Your task to perform on an android device: Open my contact list Image 0: 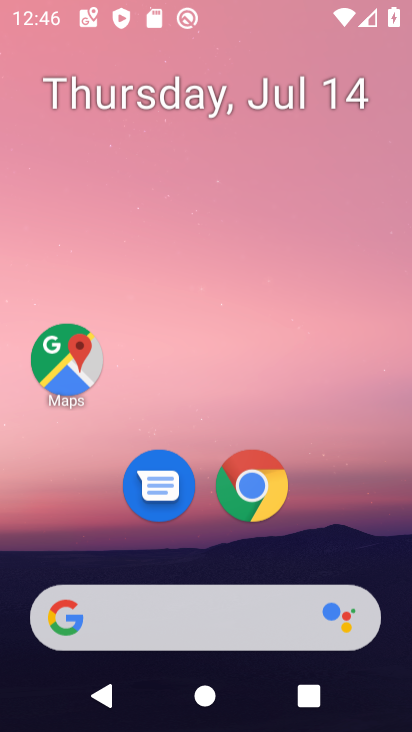
Step 0: press home button
Your task to perform on an android device: Open my contact list Image 1: 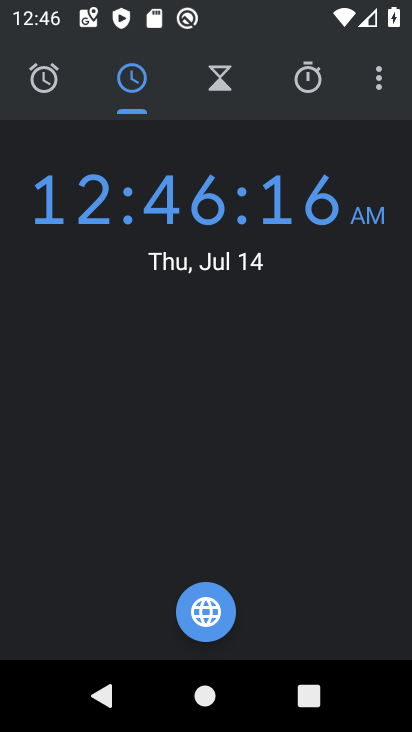
Step 1: press back button
Your task to perform on an android device: Open my contact list Image 2: 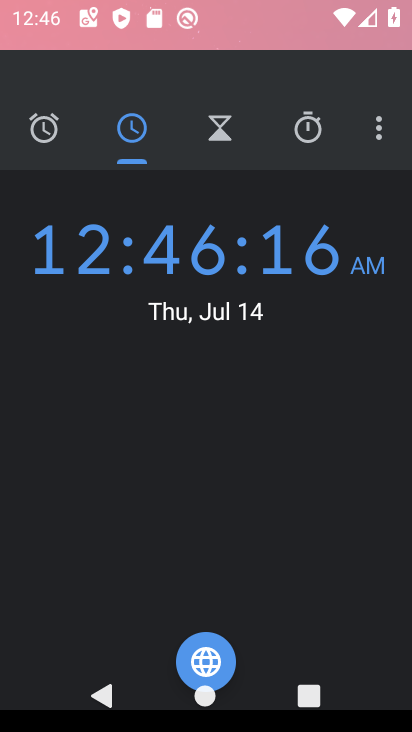
Step 2: press home button
Your task to perform on an android device: Open my contact list Image 3: 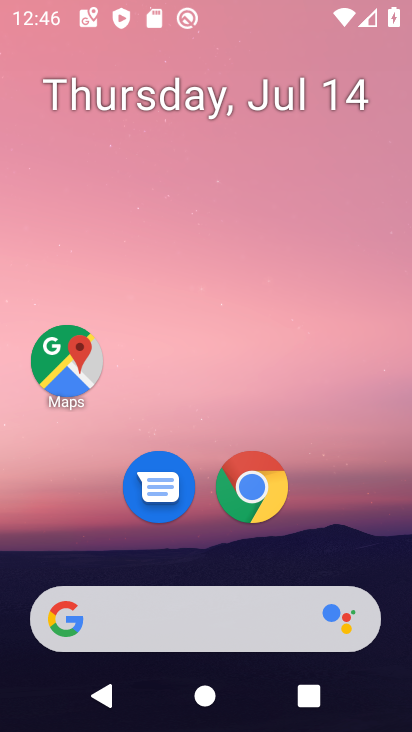
Step 3: click (411, 431)
Your task to perform on an android device: Open my contact list Image 4: 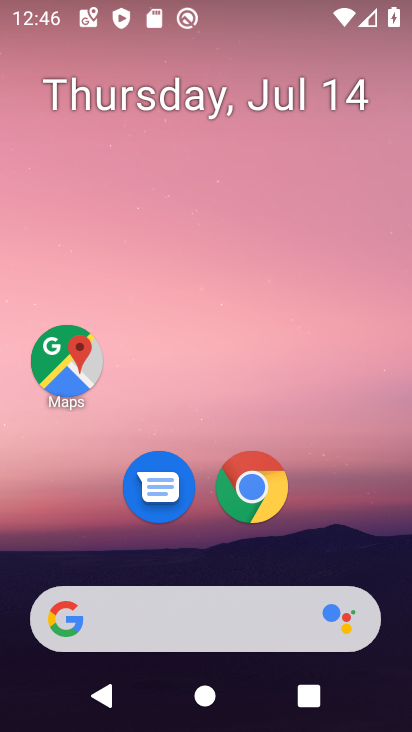
Step 4: press home button
Your task to perform on an android device: Open my contact list Image 5: 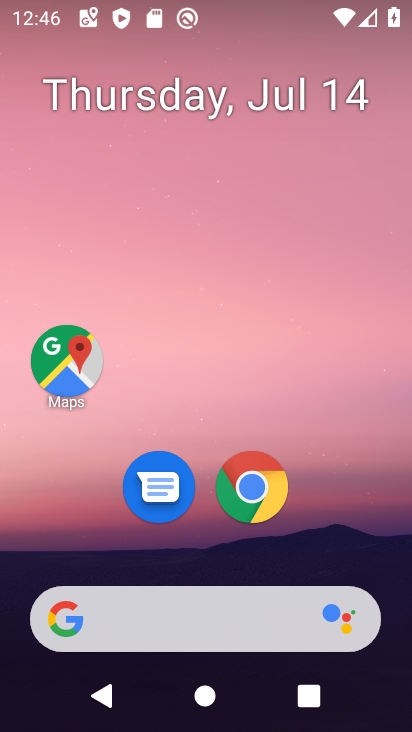
Step 5: drag from (209, 516) to (209, 127)
Your task to perform on an android device: Open my contact list Image 6: 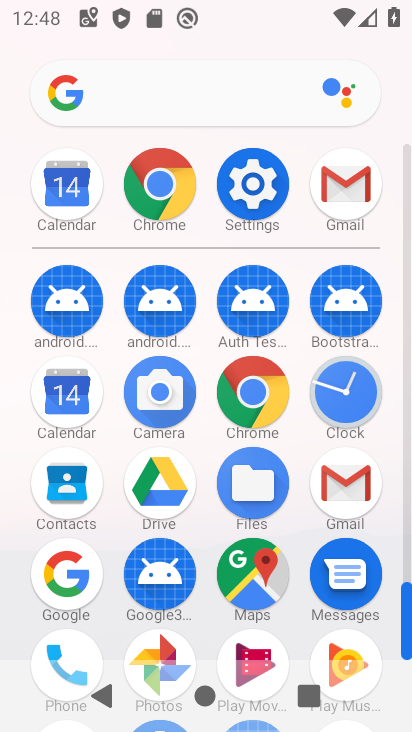
Step 6: click (68, 507)
Your task to perform on an android device: Open my contact list Image 7: 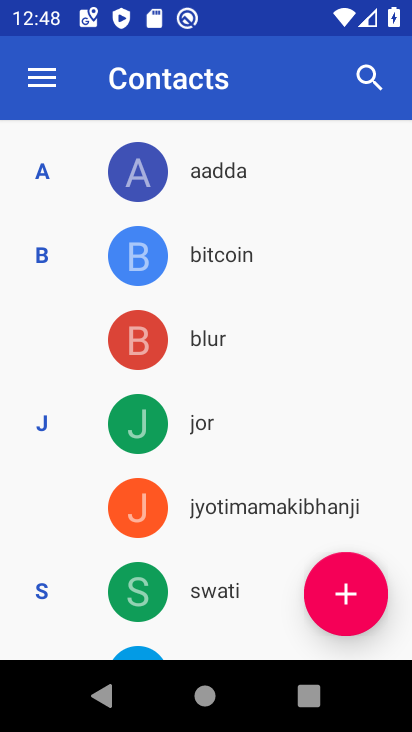
Step 7: task complete